Your task to perform on an android device: open device folders in google photos Image 0: 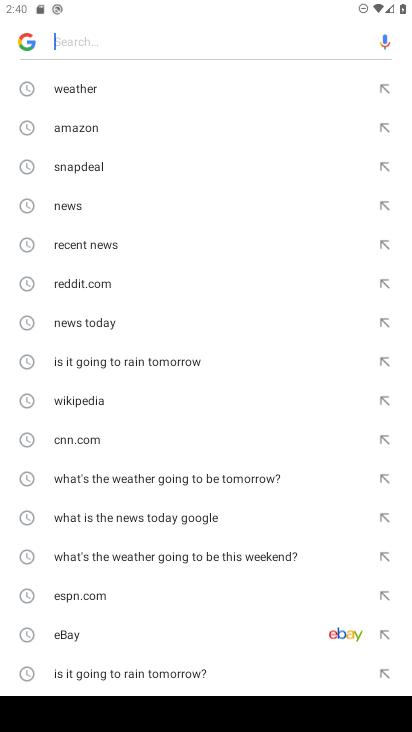
Step 0: press home button
Your task to perform on an android device: open device folders in google photos Image 1: 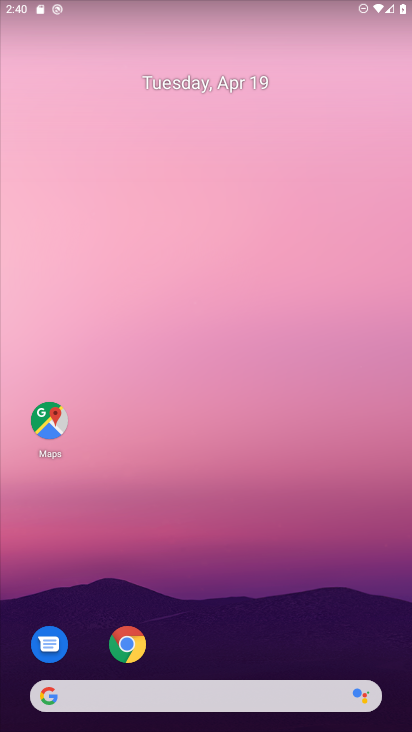
Step 1: drag from (191, 616) to (140, 100)
Your task to perform on an android device: open device folders in google photos Image 2: 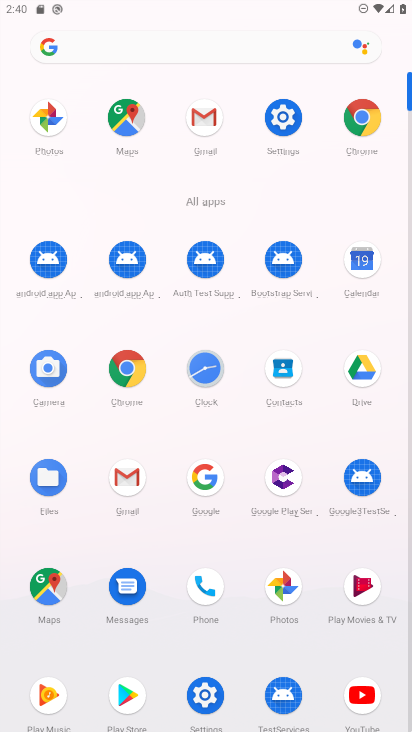
Step 2: click (291, 581)
Your task to perform on an android device: open device folders in google photos Image 3: 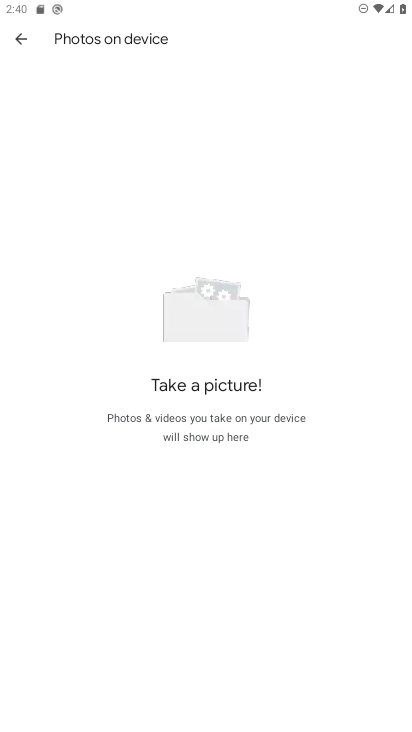
Step 3: click (26, 36)
Your task to perform on an android device: open device folders in google photos Image 4: 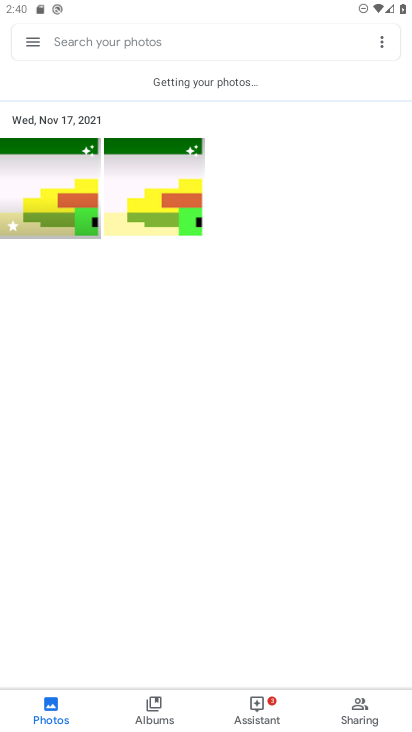
Step 4: click (26, 38)
Your task to perform on an android device: open device folders in google photos Image 5: 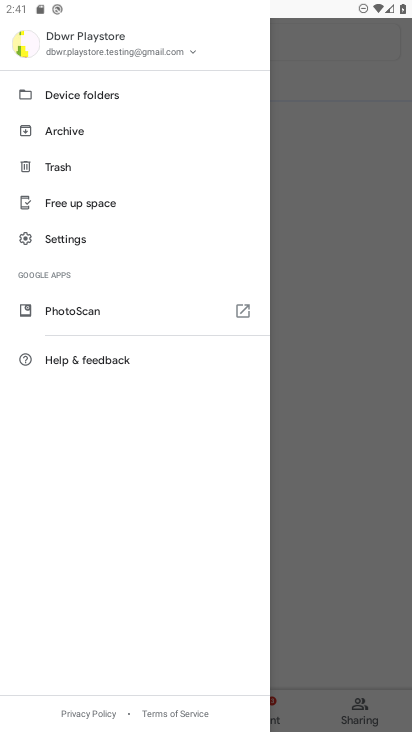
Step 5: click (93, 94)
Your task to perform on an android device: open device folders in google photos Image 6: 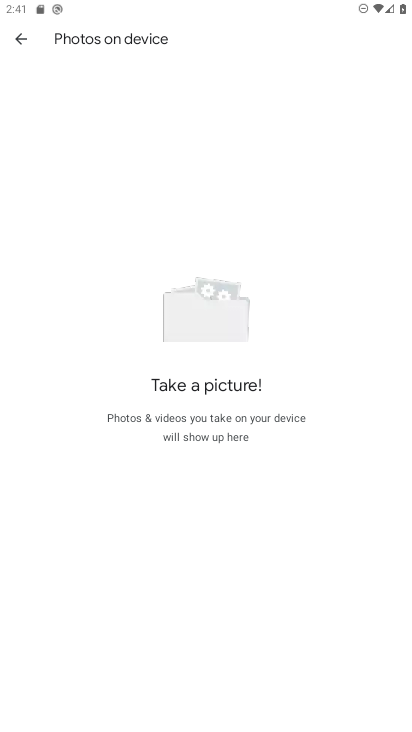
Step 6: task complete